Your task to perform on an android device: Clear the shopping cart on bestbuy. Search for macbook on bestbuy, select the first entry, add it to the cart, then select checkout. Image 0: 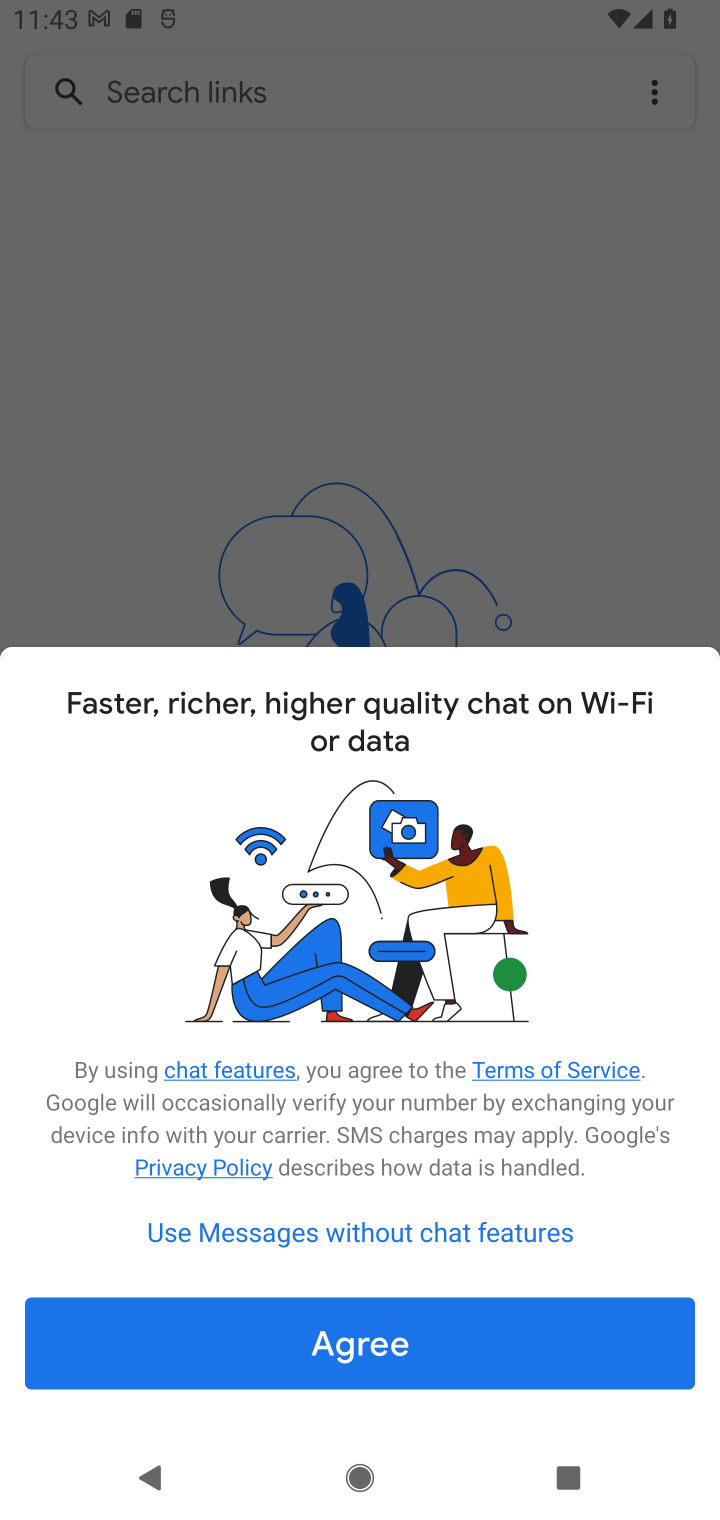
Step 0: press home button
Your task to perform on an android device: Clear the shopping cart on bestbuy. Search for macbook on bestbuy, select the first entry, add it to the cart, then select checkout. Image 1: 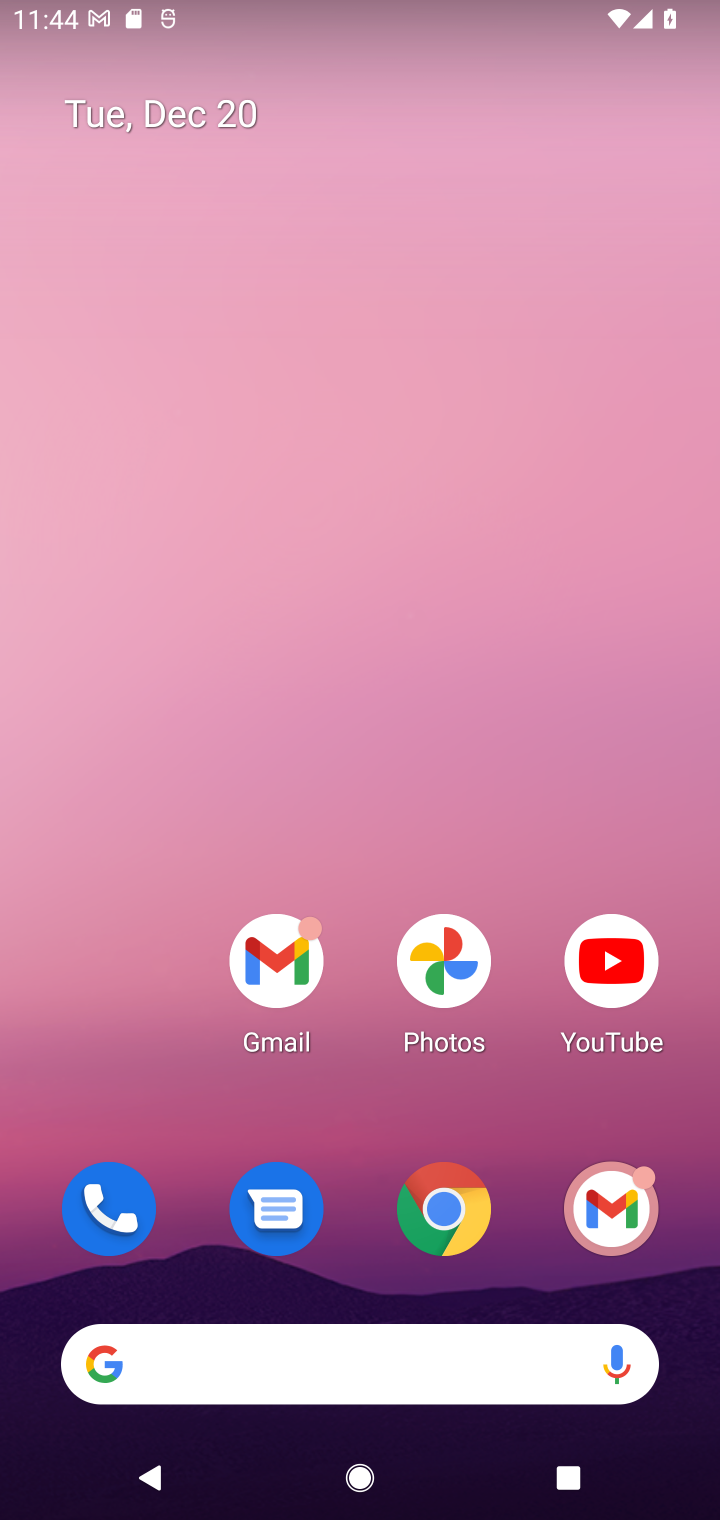
Step 1: click (455, 1213)
Your task to perform on an android device: Clear the shopping cart on bestbuy. Search for macbook on bestbuy, select the first entry, add it to the cart, then select checkout. Image 2: 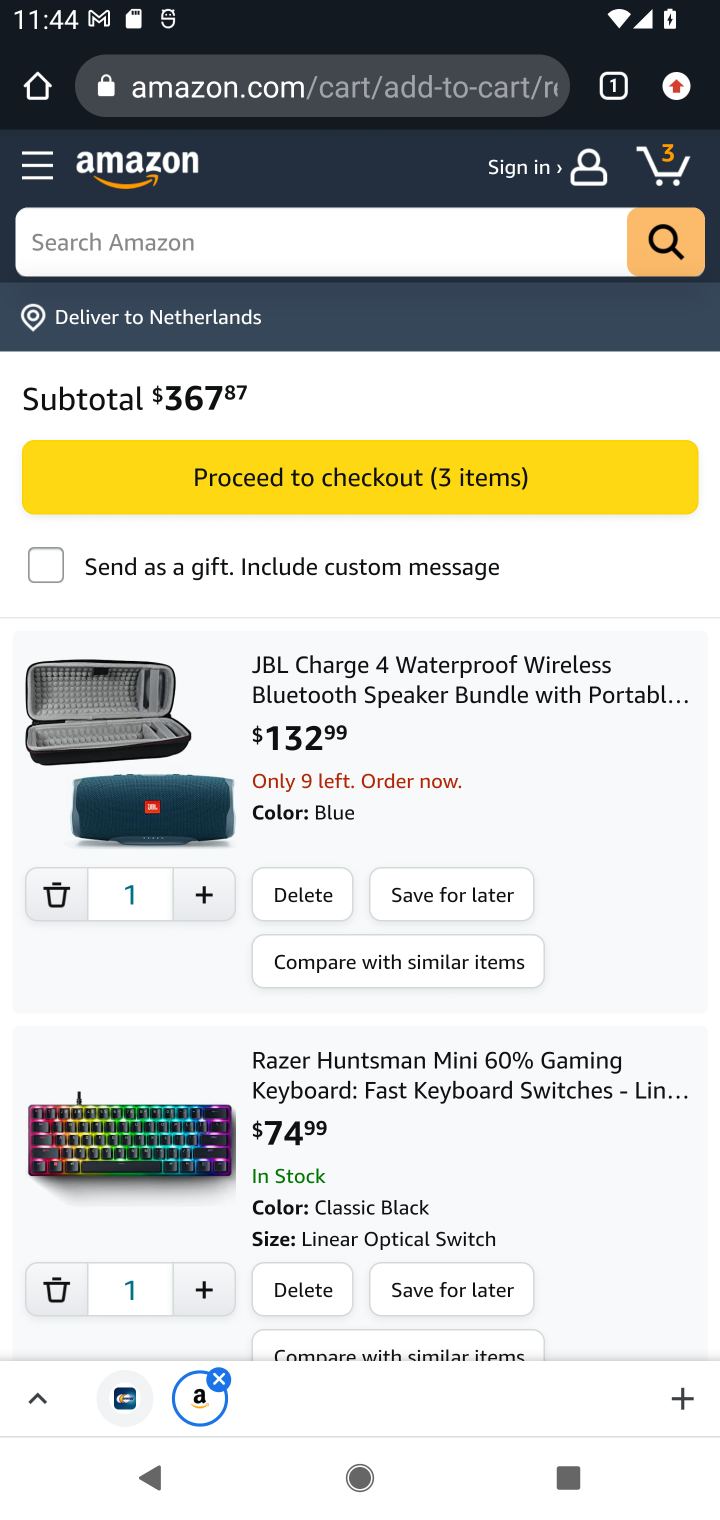
Step 2: click (242, 96)
Your task to perform on an android device: Clear the shopping cart on bestbuy. Search for macbook on bestbuy, select the first entry, add it to the cart, then select checkout. Image 3: 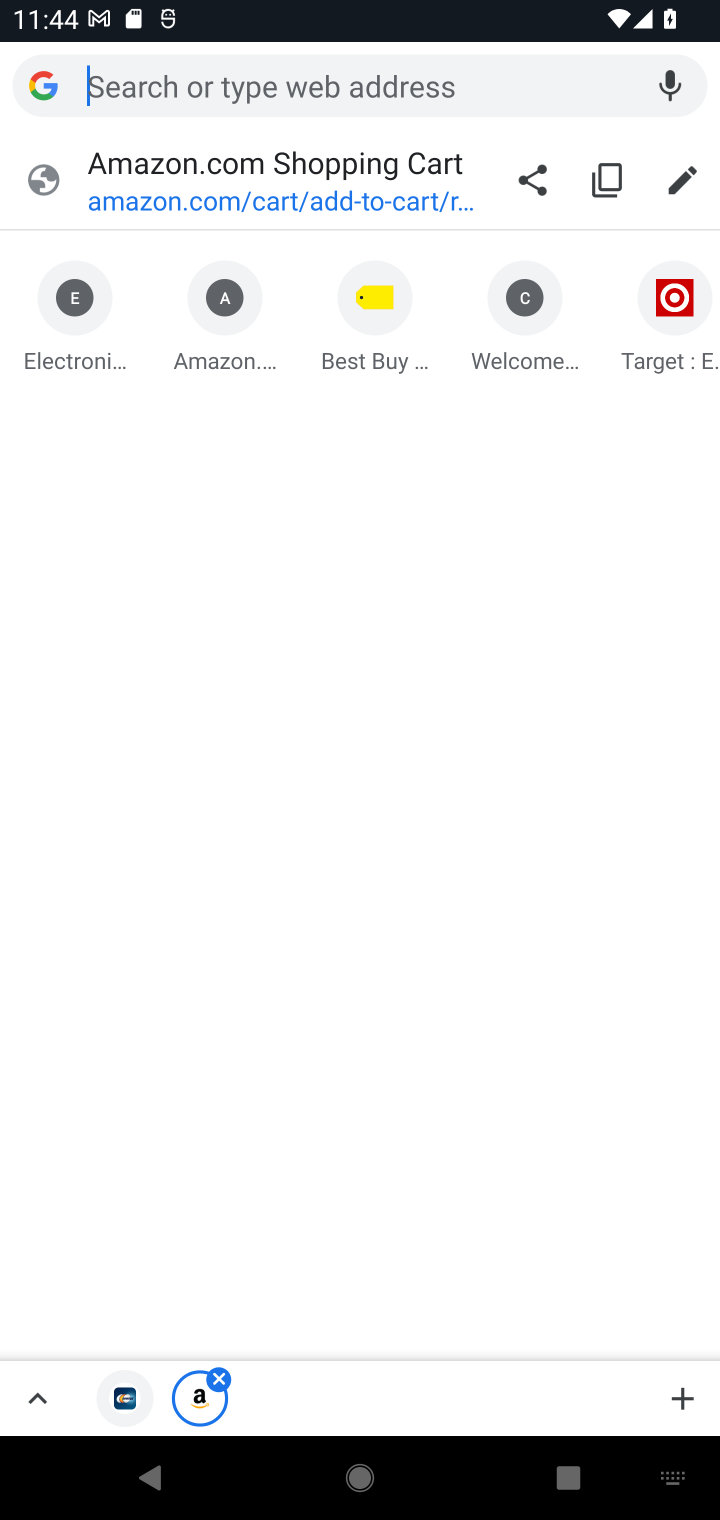
Step 3: click (357, 352)
Your task to perform on an android device: Clear the shopping cart on bestbuy. Search for macbook on bestbuy, select the first entry, add it to the cart, then select checkout. Image 4: 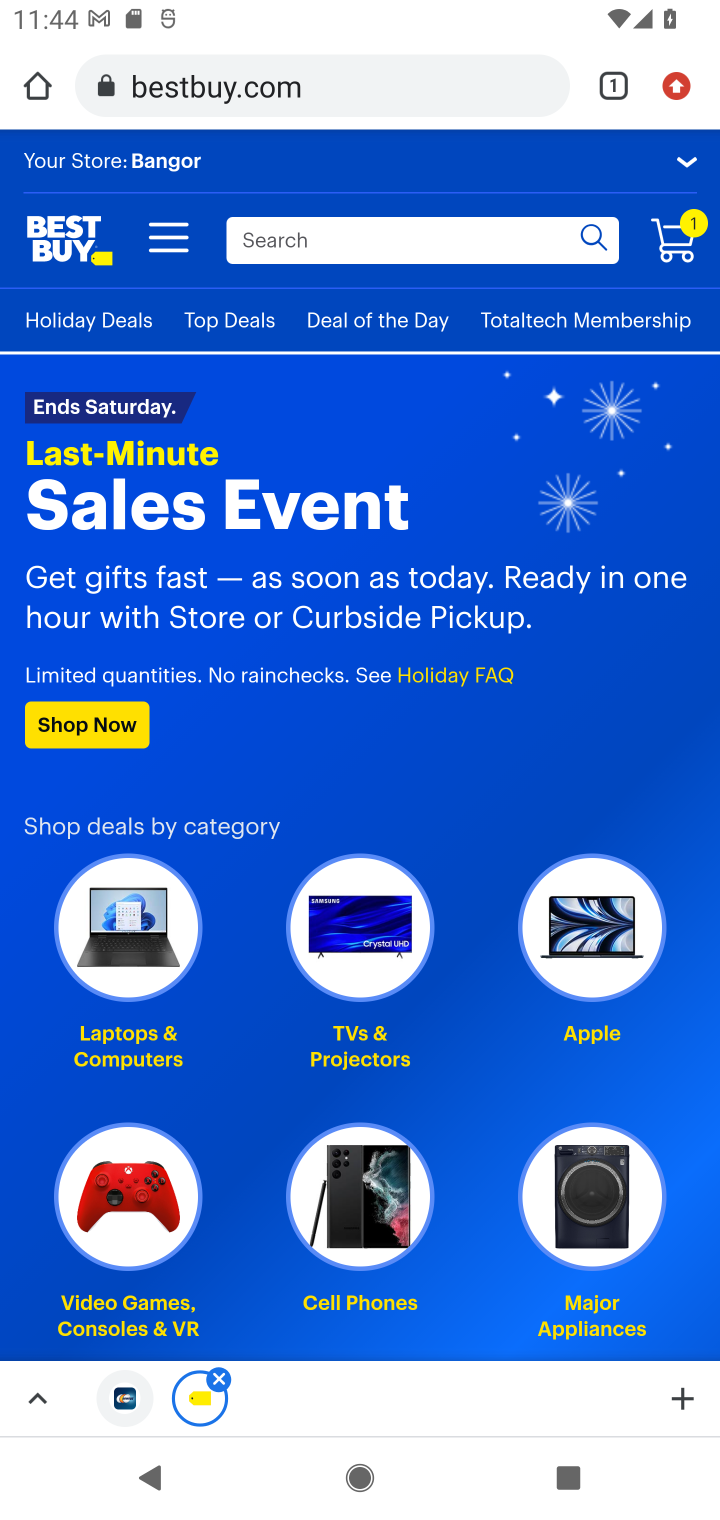
Step 4: click (680, 243)
Your task to perform on an android device: Clear the shopping cart on bestbuy. Search for macbook on bestbuy, select the first entry, add it to the cart, then select checkout. Image 5: 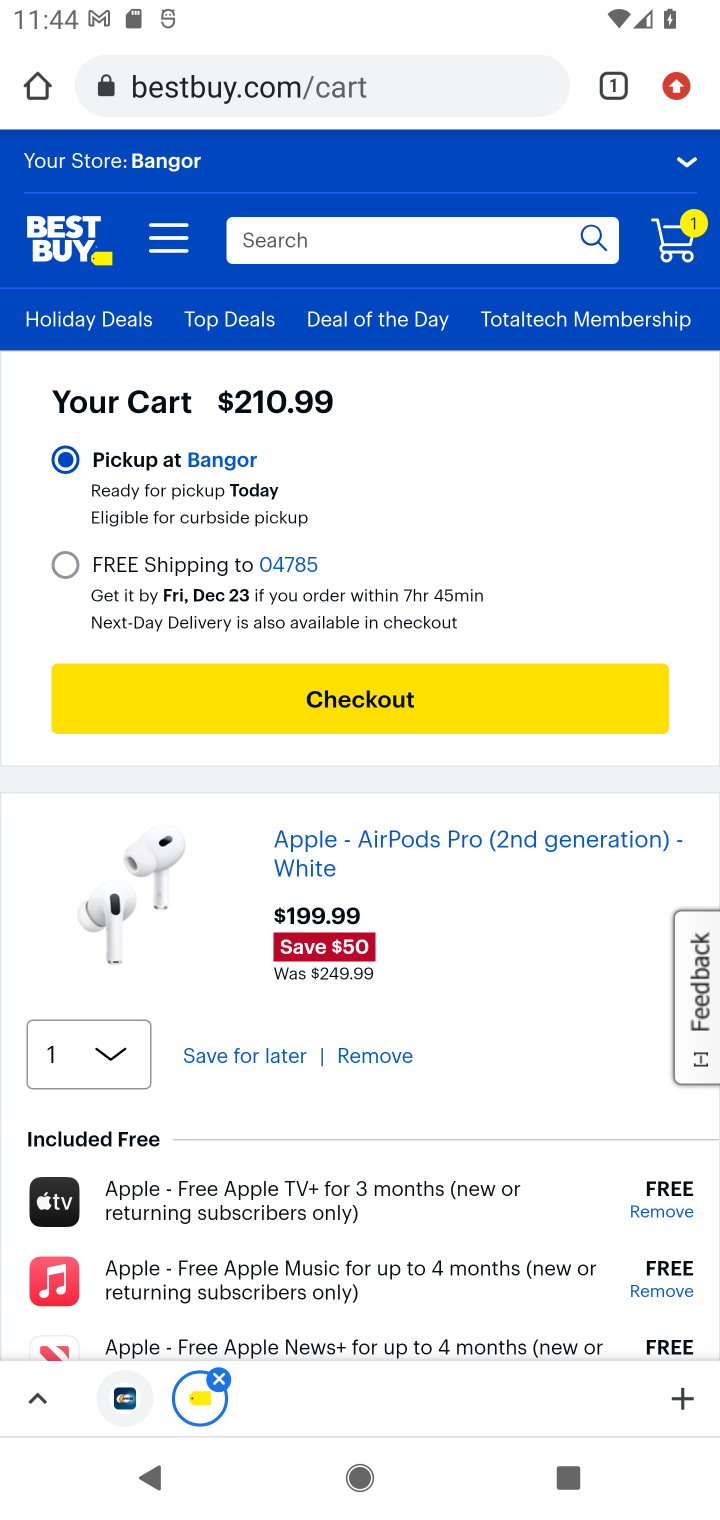
Step 5: click (371, 1061)
Your task to perform on an android device: Clear the shopping cart on bestbuy. Search for macbook on bestbuy, select the first entry, add it to the cart, then select checkout. Image 6: 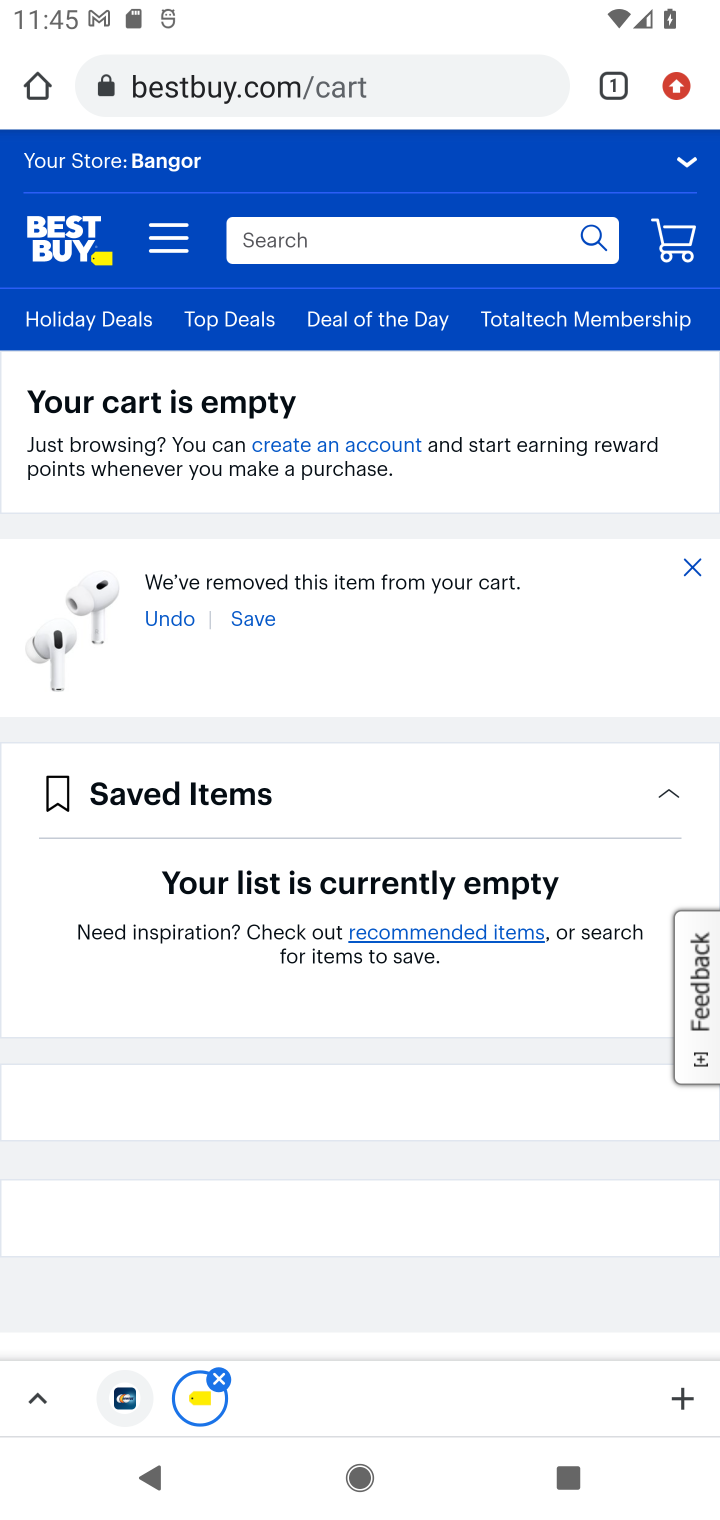
Step 6: click (263, 248)
Your task to perform on an android device: Clear the shopping cart on bestbuy. Search for macbook on bestbuy, select the first entry, add it to the cart, then select checkout. Image 7: 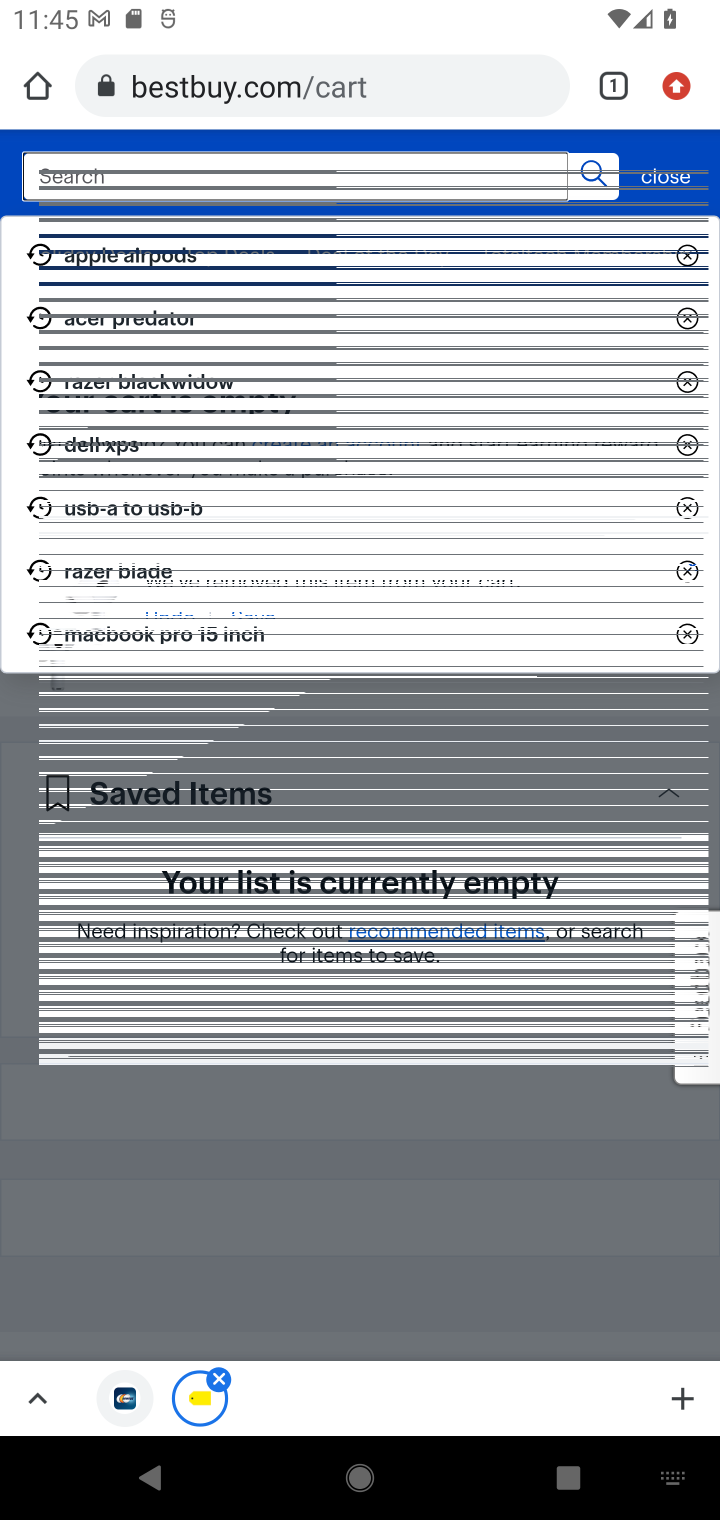
Step 7: type " macbook "
Your task to perform on an android device: Clear the shopping cart on bestbuy. Search for macbook on bestbuy, select the first entry, add it to the cart, then select checkout. Image 8: 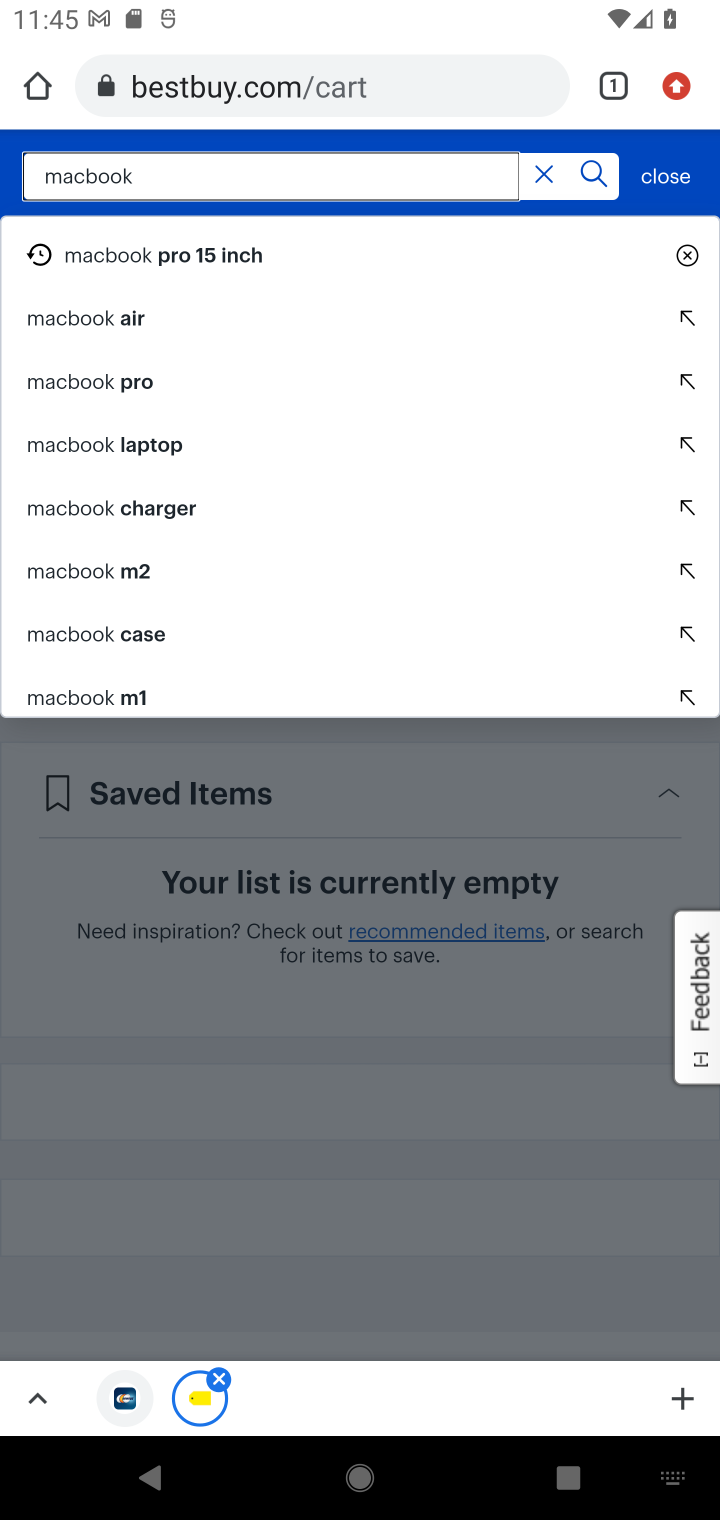
Step 8: click (591, 177)
Your task to perform on an android device: Clear the shopping cart on bestbuy. Search for macbook on bestbuy, select the first entry, add it to the cart, then select checkout. Image 9: 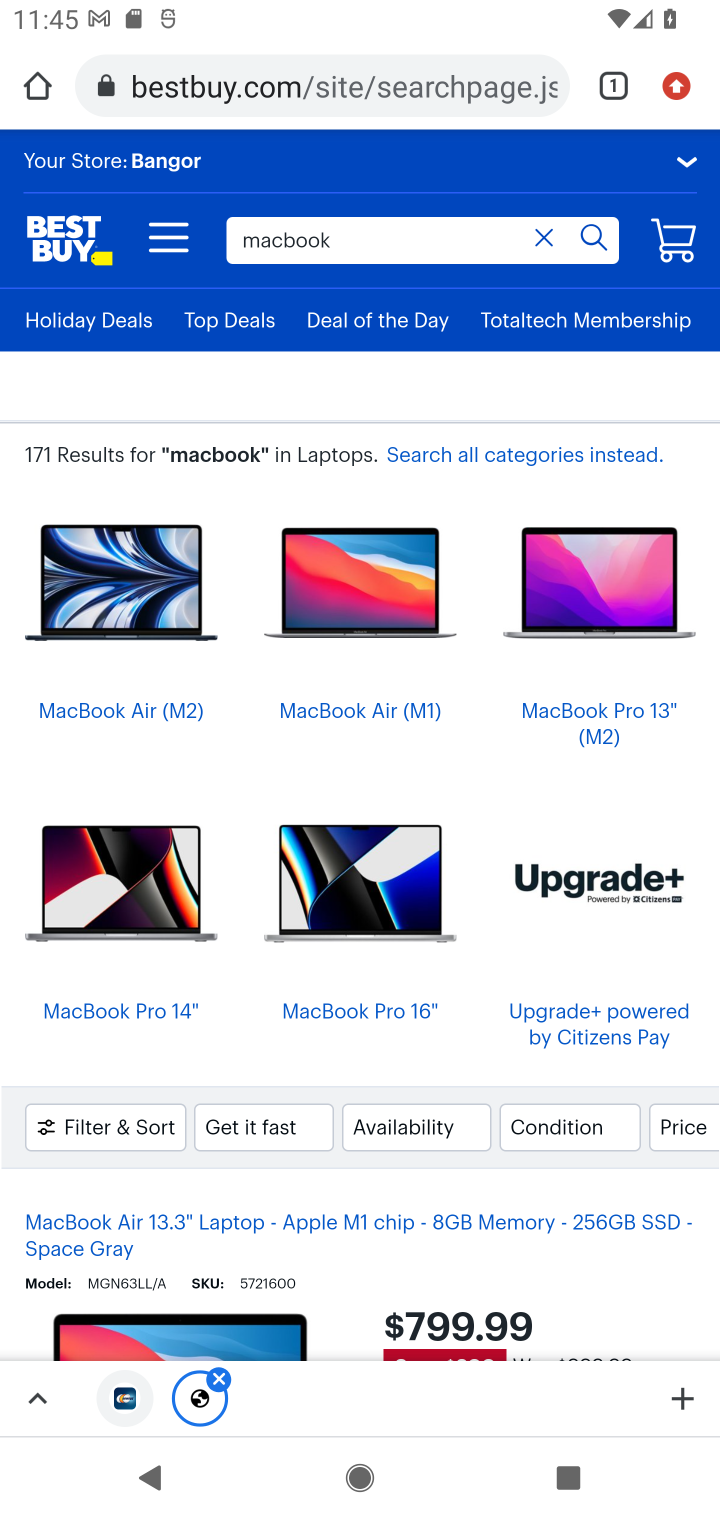
Step 9: drag from (327, 1110) to (296, 622)
Your task to perform on an android device: Clear the shopping cart on bestbuy. Search for macbook on bestbuy, select the first entry, add it to the cart, then select checkout. Image 10: 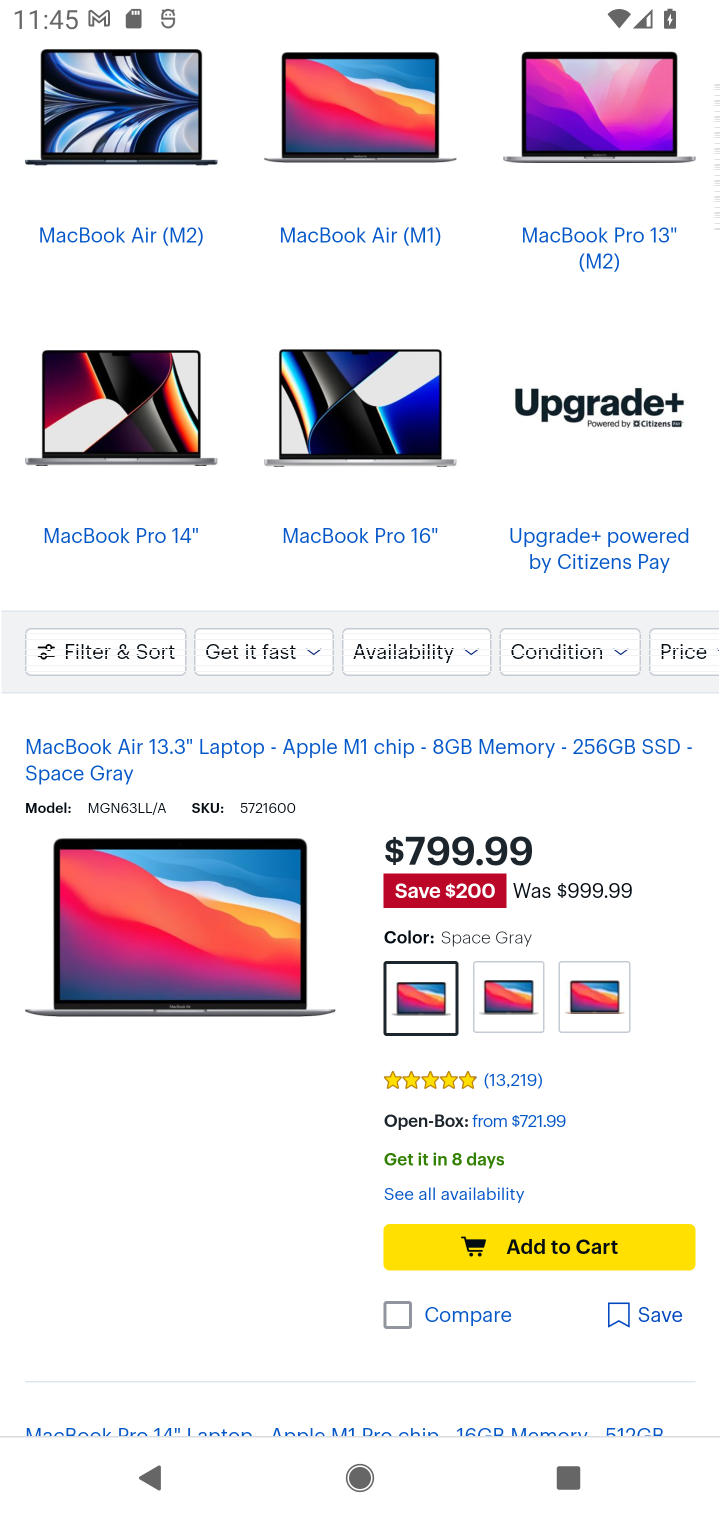
Step 10: click (542, 1237)
Your task to perform on an android device: Clear the shopping cart on bestbuy. Search for macbook on bestbuy, select the first entry, add it to the cart, then select checkout. Image 11: 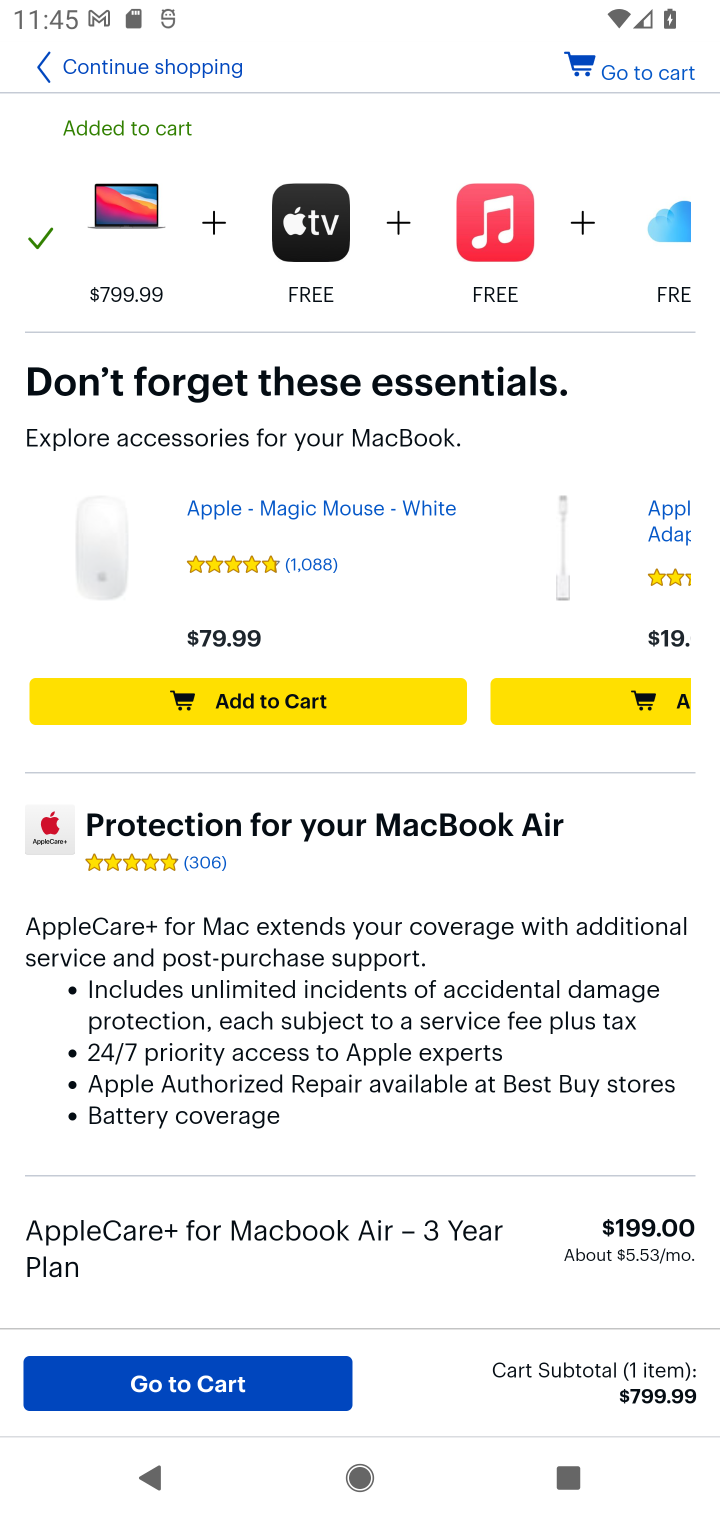
Step 11: click (628, 70)
Your task to perform on an android device: Clear the shopping cart on bestbuy. Search for macbook on bestbuy, select the first entry, add it to the cart, then select checkout. Image 12: 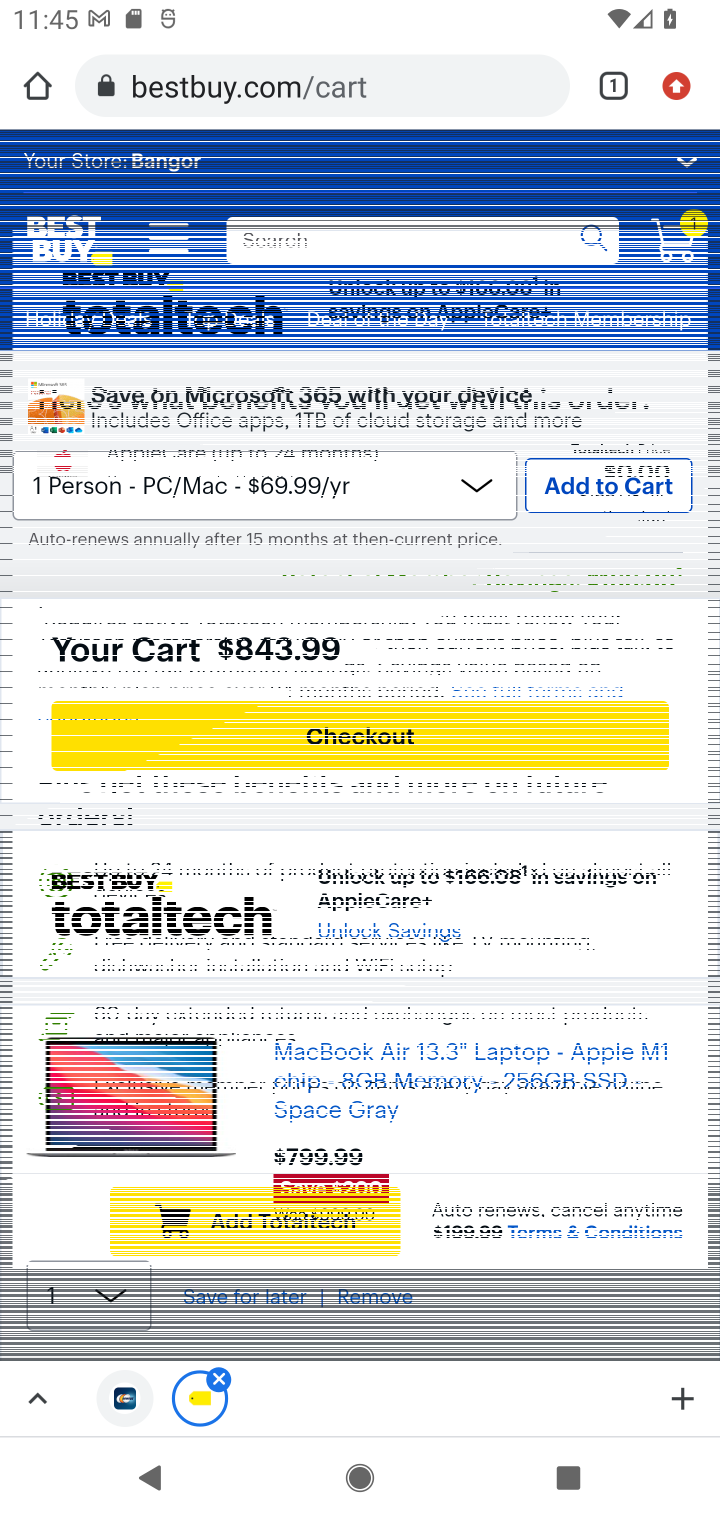
Step 12: click (318, 745)
Your task to perform on an android device: Clear the shopping cart on bestbuy. Search for macbook on bestbuy, select the first entry, add it to the cart, then select checkout. Image 13: 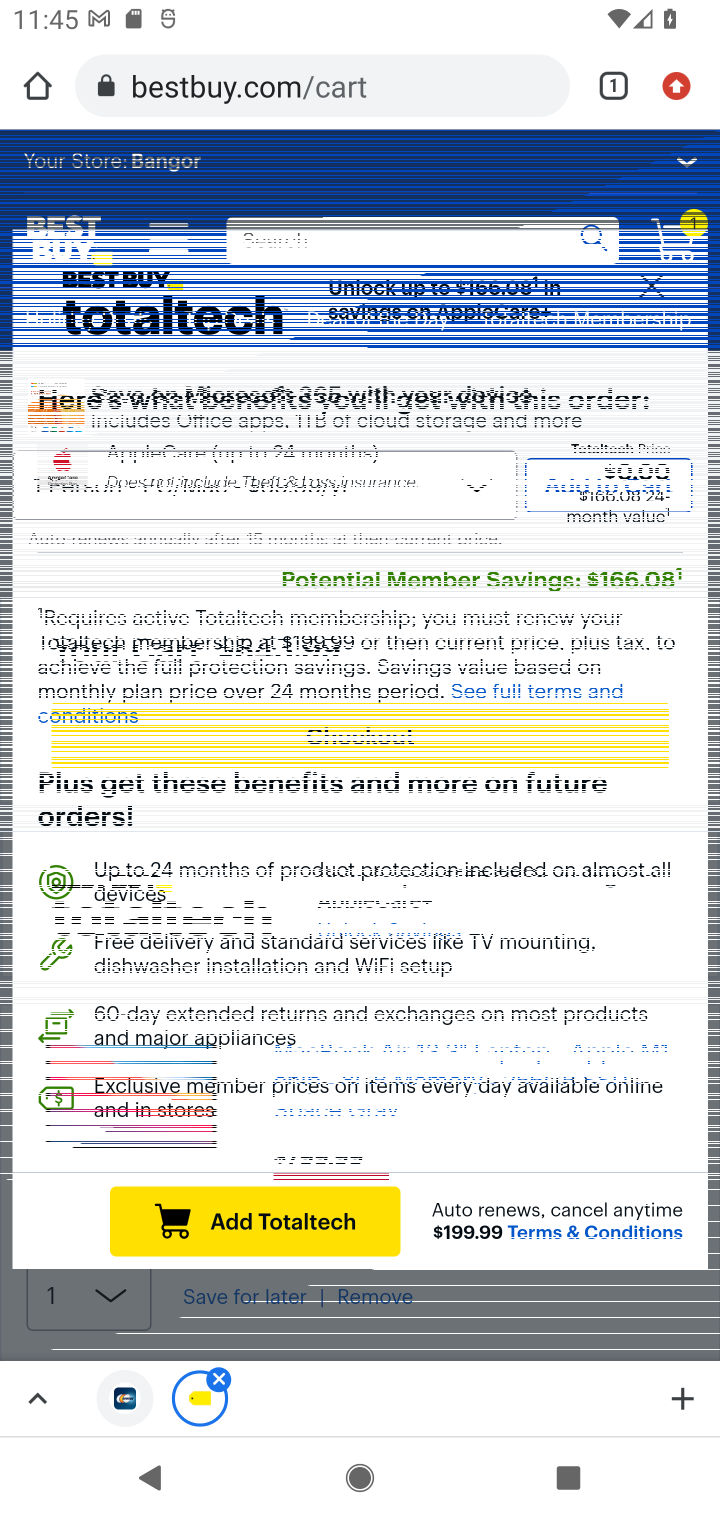
Step 13: click (651, 272)
Your task to perform on an android device: Clear the shopping cart on bestbuy. Search for macbook on bestbuy, select the first entry, add it to the cart, then select checkout. Image 14: 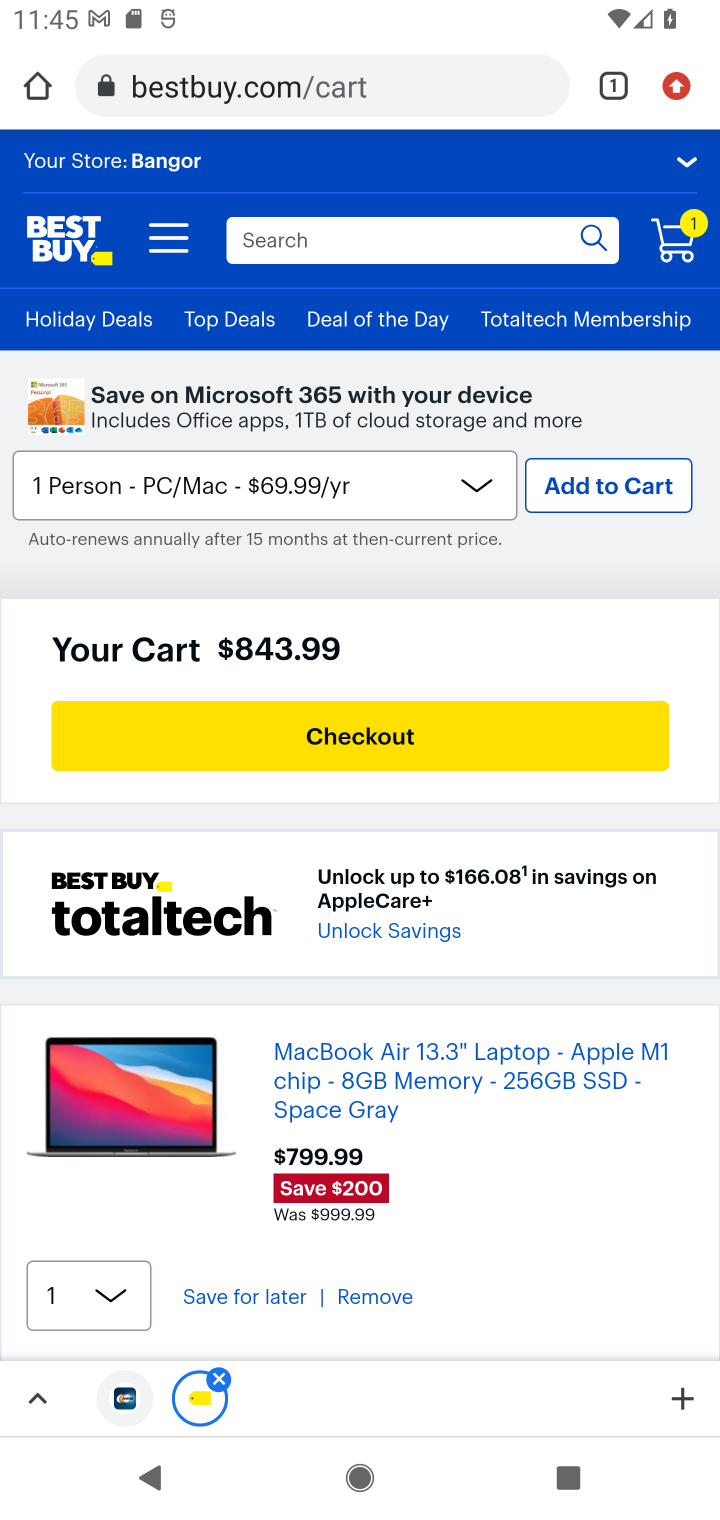
Step 14: click (337, 743)
Your task to perform on an android device: Clear the shopping cart on bestbuy. Search for macbook on bestbuy, select the first entry, add it to the cart, then select checkout. Image 15: 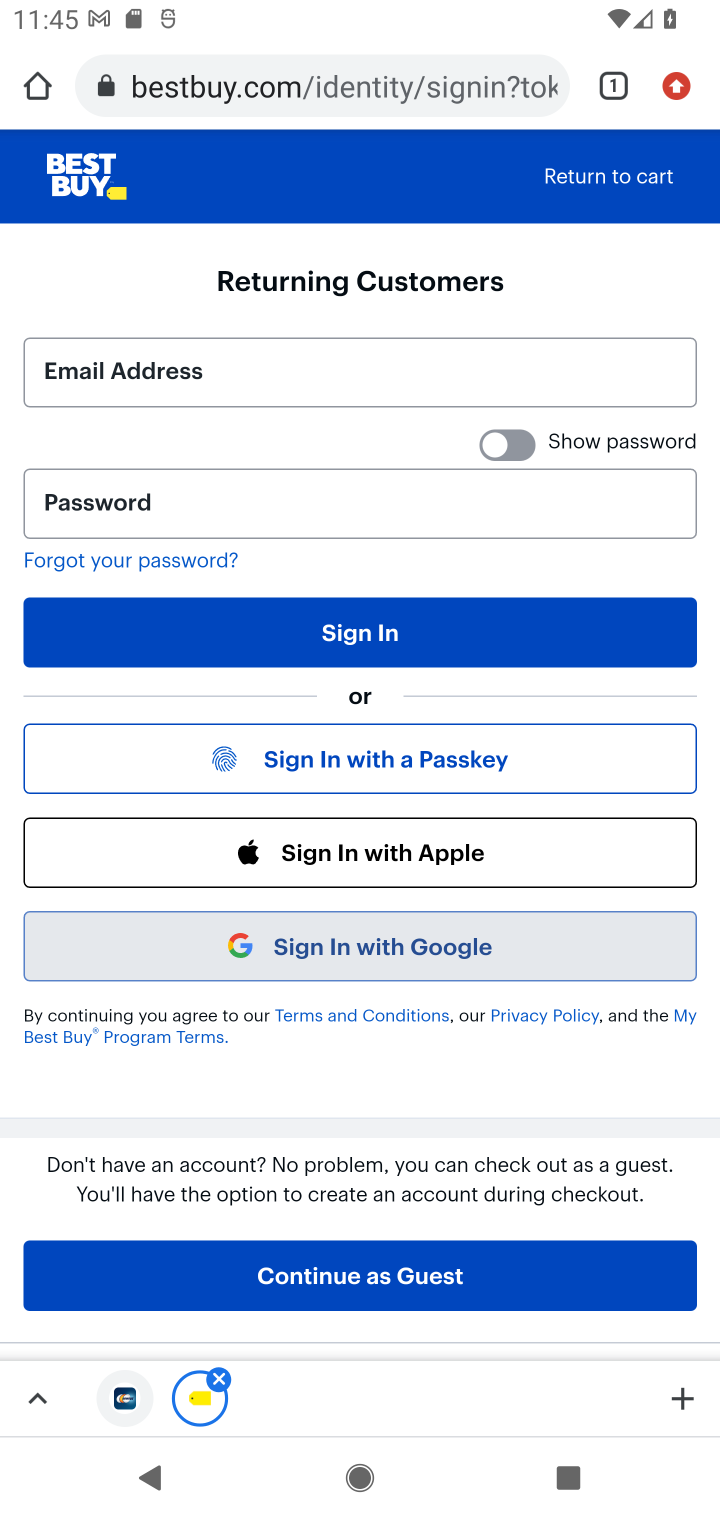
Step 15: task complete